Your task to perform on an android device: Open the phone app and click the voicemail tab. Image 0: 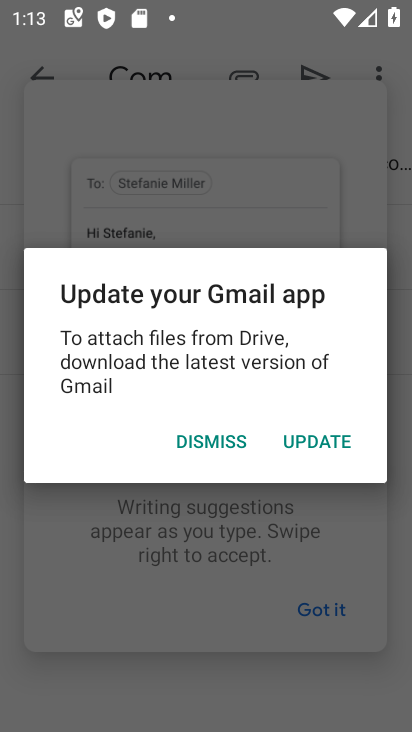
Step 0: press home button
Your task to perform on an android device: Open the phone app and click the voicemail tab. Image 1: 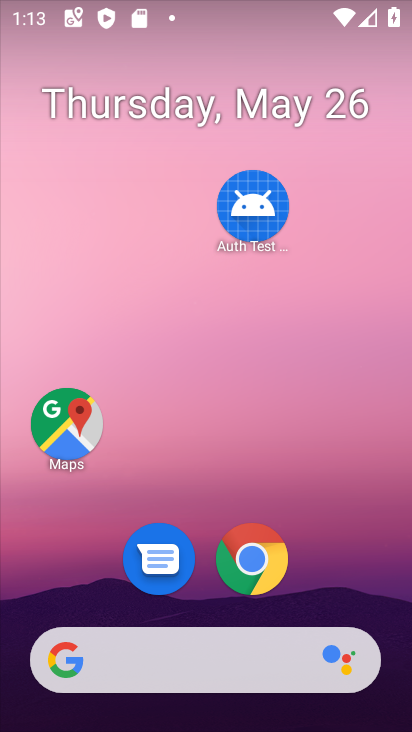
Step 1: drag from (349, 608) to (351, 91)
Your task to perform on an android device: Open the phone app and click the voicemail tab. Image 2: 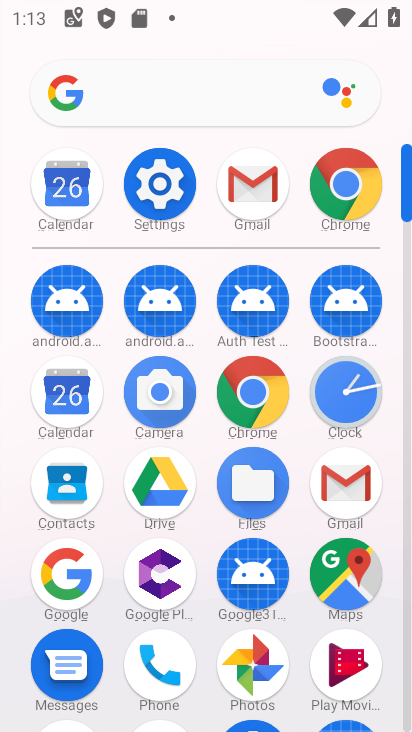
Step 2: click (151, 663)
Your task to perform on an android device: Open the phone app and click the voicemail tab. Image 3: 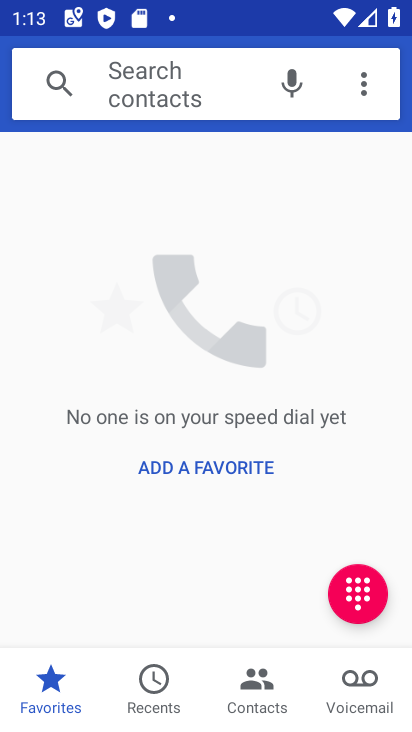
Step 3: click (354, 687)
Your task to perform on an android device: Open the phone app and click the voicemail tab. Image 4: 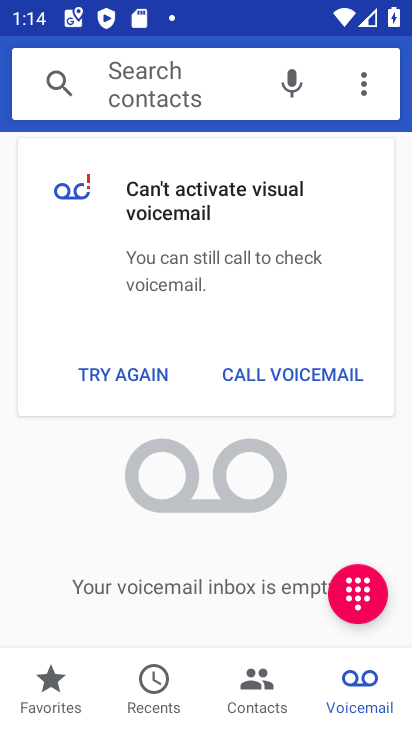
Step 4: task complete